Your task to perform on an android device: check battery use Image 0: 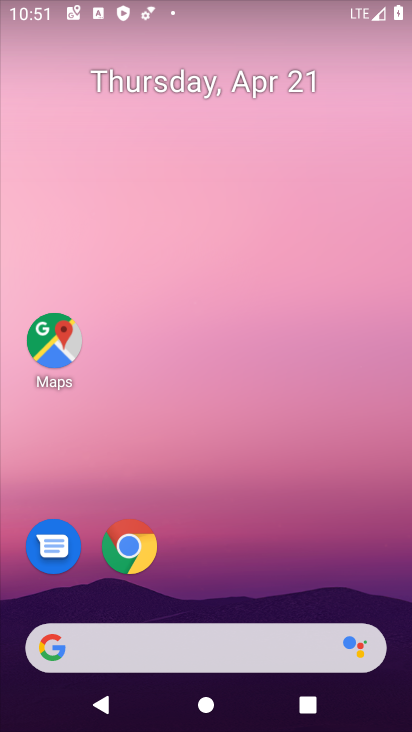
Step 0: drag from (389, 606) to (312, 128)
Your task to perform on an android device: check battery use Image 1: 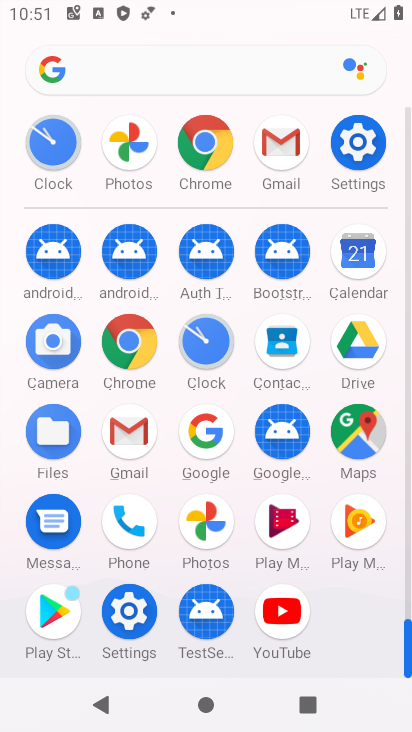
Step 1: click (129, 609)
Your task to perform on an android device: check battery use Image 2: 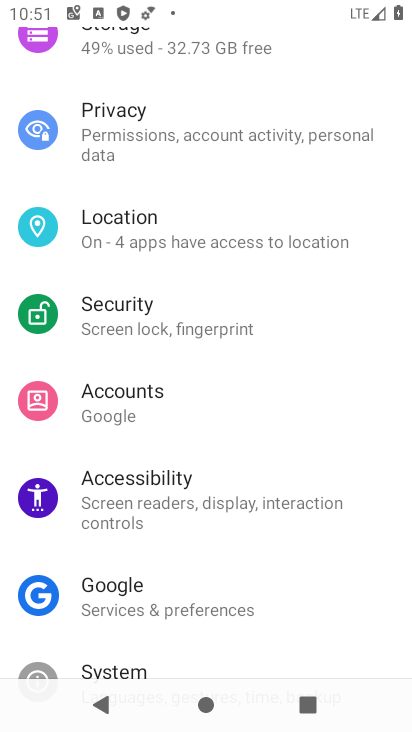
Step 2: drag from (377, 171) to (322, 411)
Your task to perform on an android device: check battery use Image 3: 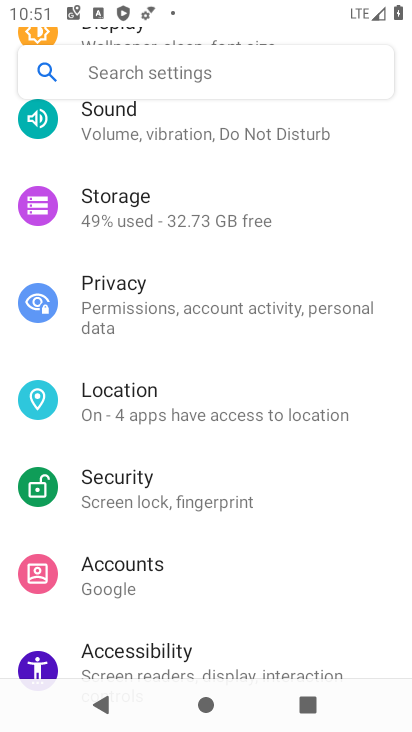
Step 3: drag from (364, 158) to (350, 394)
Your task to perform on an android device: check battery use Image 4: 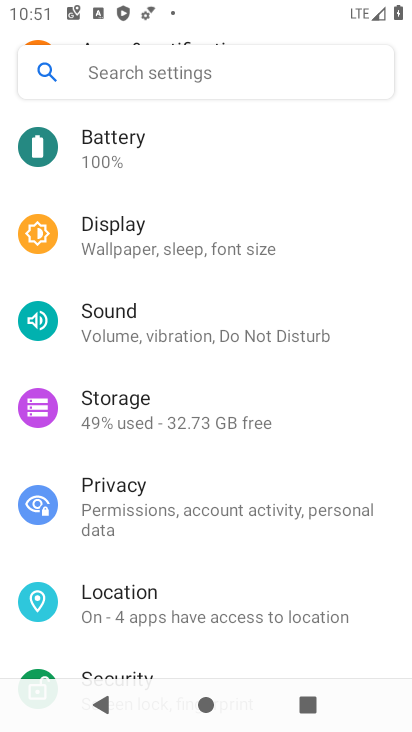
Step 4: click (117, 152)
Your task to perform on an android device: check battery use Image 5: 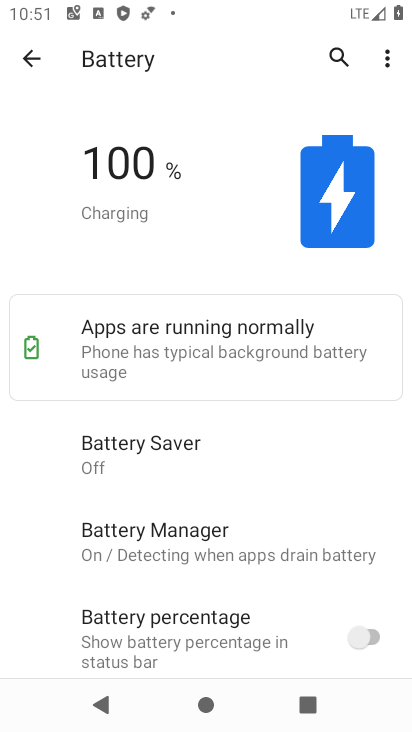
Step 5: drag from (200, 545) to (232, 222)
Your task to perform on an android device: check battery use Image 6: 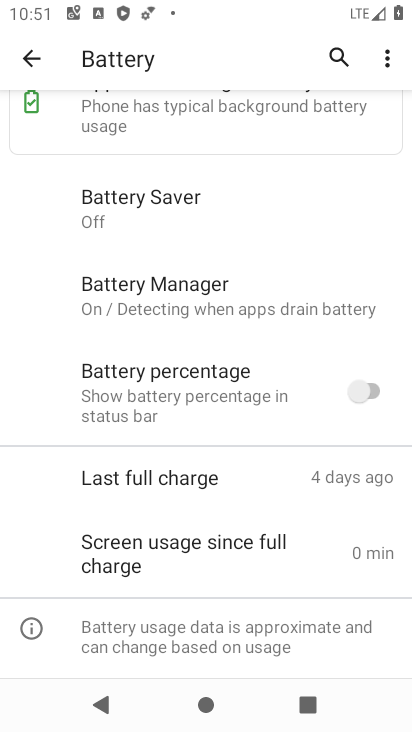
Step 6: click (386, 64)
Your task to perform on an android device: check battery use Image 7: 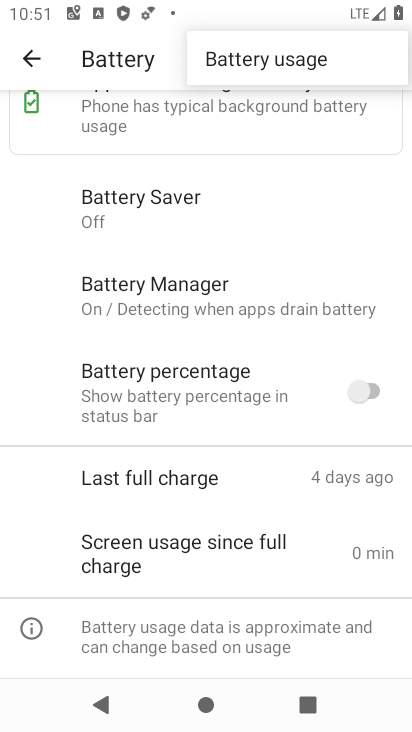
Step 7: click (230, 59)
Your task to perform on an android device: check battery use Image 8: 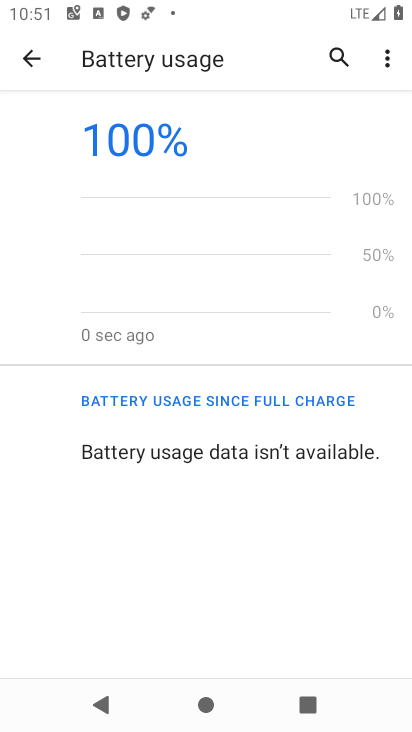
Step 8: task complete